Your task to perform on an android device: open app "Chime – Mobile Banking" (install if not already installed) Image 0: 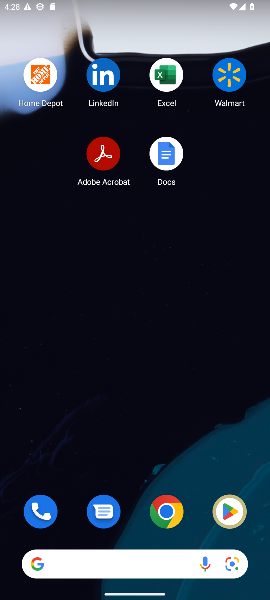
Step 0: click (226, 508)
Your task to perform on an android device: open app "Chime – Mobile Banking" (install if not already installed) Image 1: 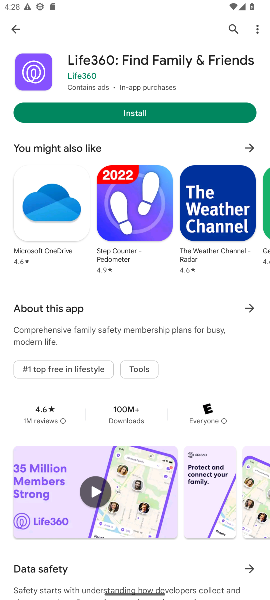
Step 1: click (223, 508)
Your task to perform on an android device: open app "Chime – Mobile Banking" (install if not already installed) Image 2: 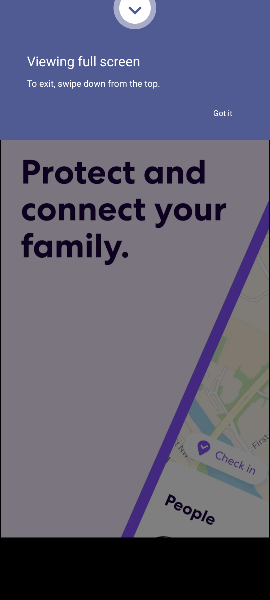
Step 2: task complete